Your task to perform on an android device: uninstall "Google Play Games" Image 0: 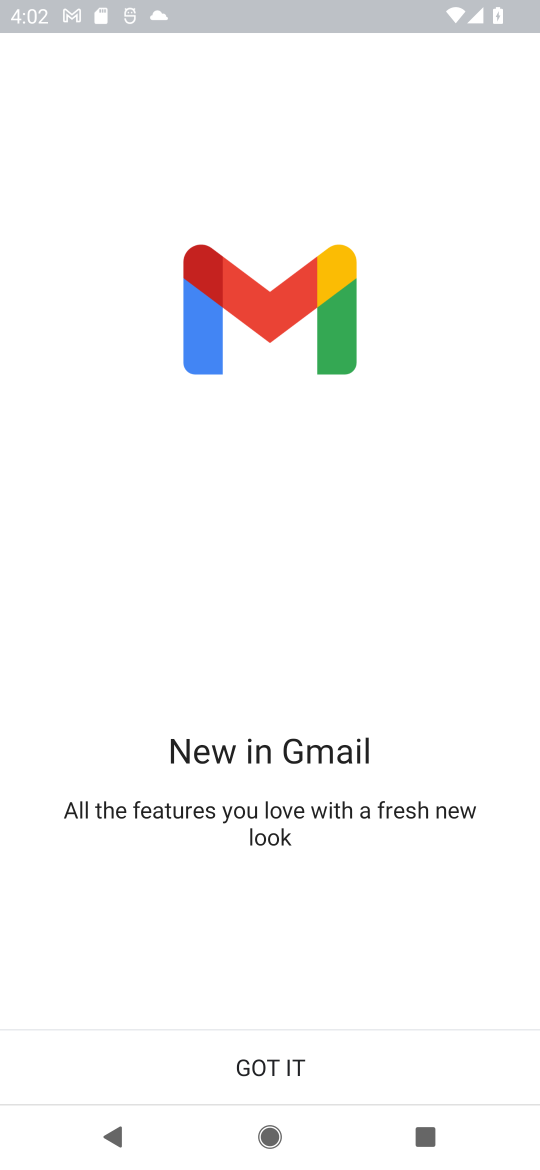
Step 0: press home button
Your task to perform on an android device: uninstall "Google Play Games" Image 1: 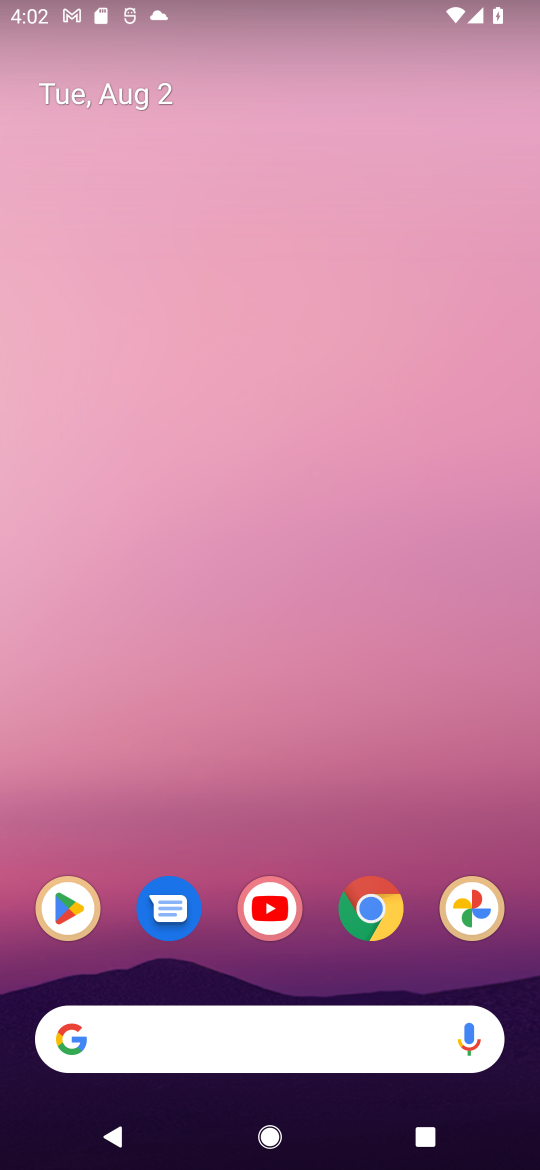
Step 1: click (60, 898)
Your task to perform on an android device: uninstall "Google Play Games" Image 2: 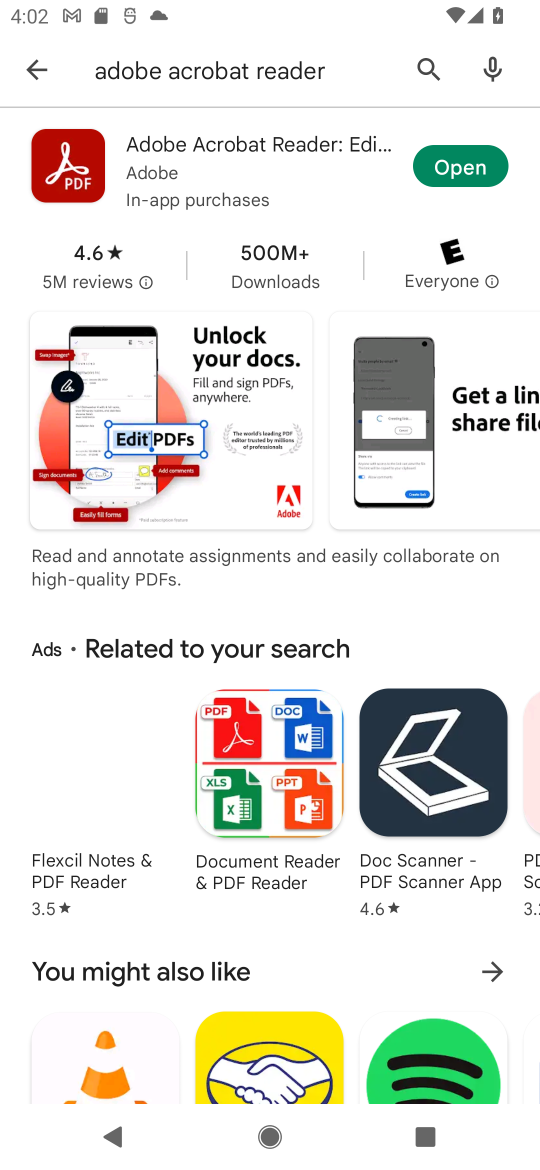
Step 2: click (418, 65)
Your task to perform on an android device: uninstall "Google Play Games" Image 3: 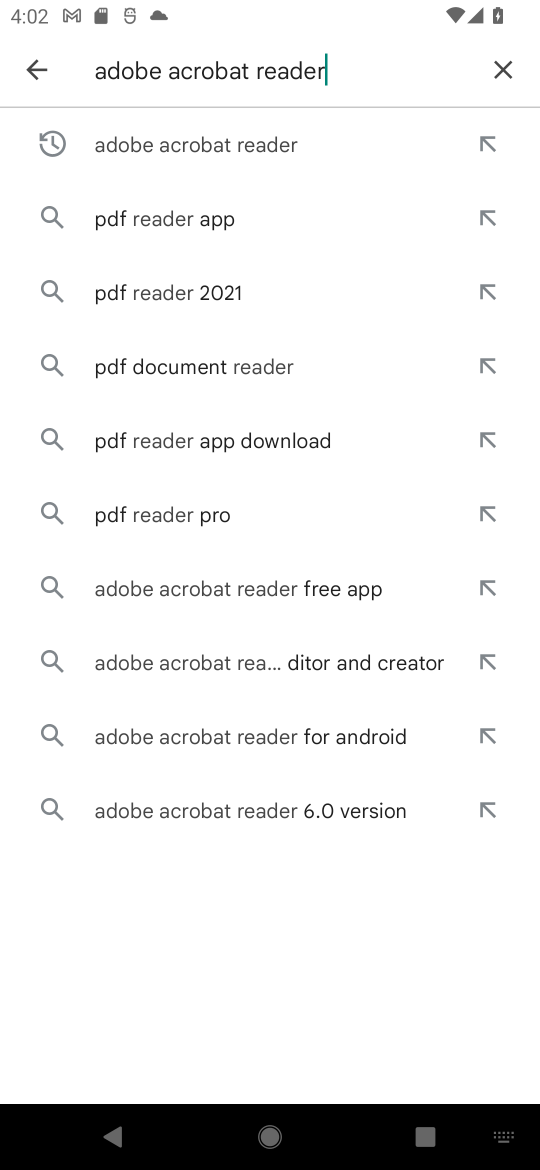
Step 3: click (504, 76)
Your task to perform on an android device: uninstall "Google Play Games" Image 4: 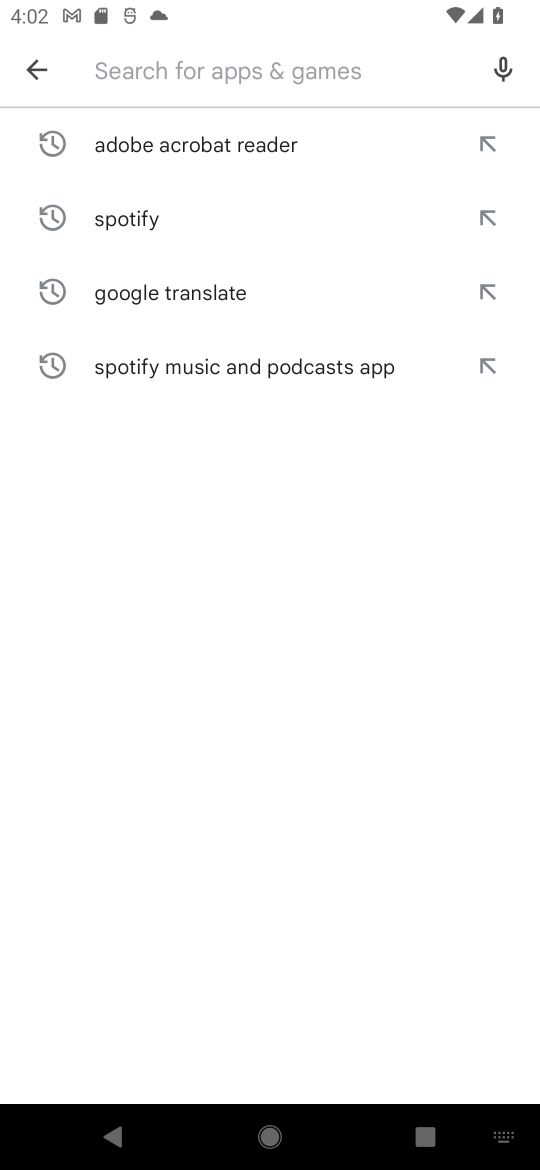
Step 4: type "Google Play Games"
Your task to perform on an android device: uninstall "Google Play Games" Image 5: 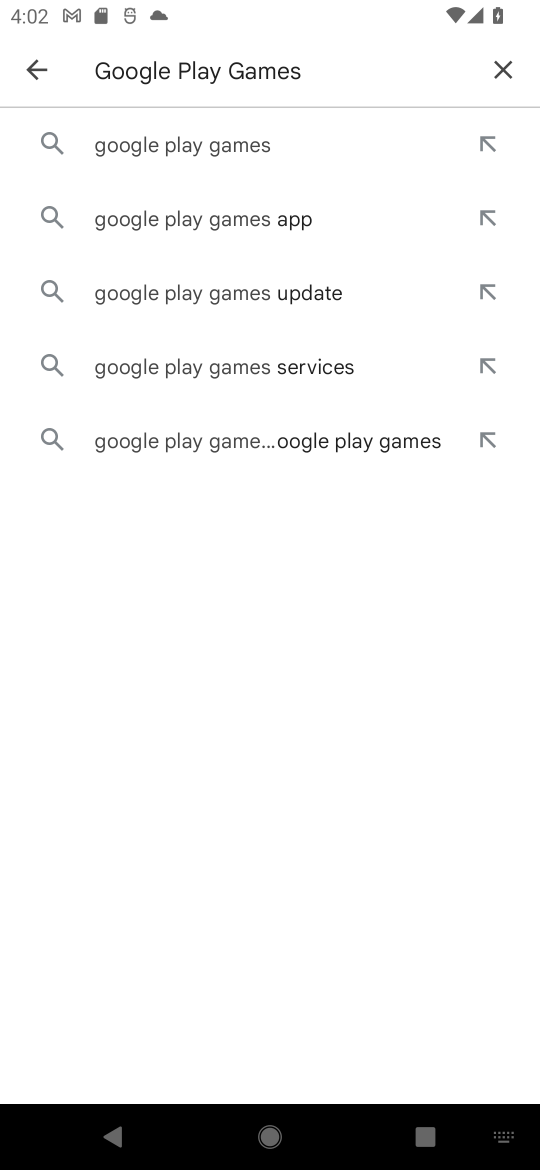
Step 5: click (257, 137)
Your task to perform on an android device: uninstall "Google Play Games" Image 6: 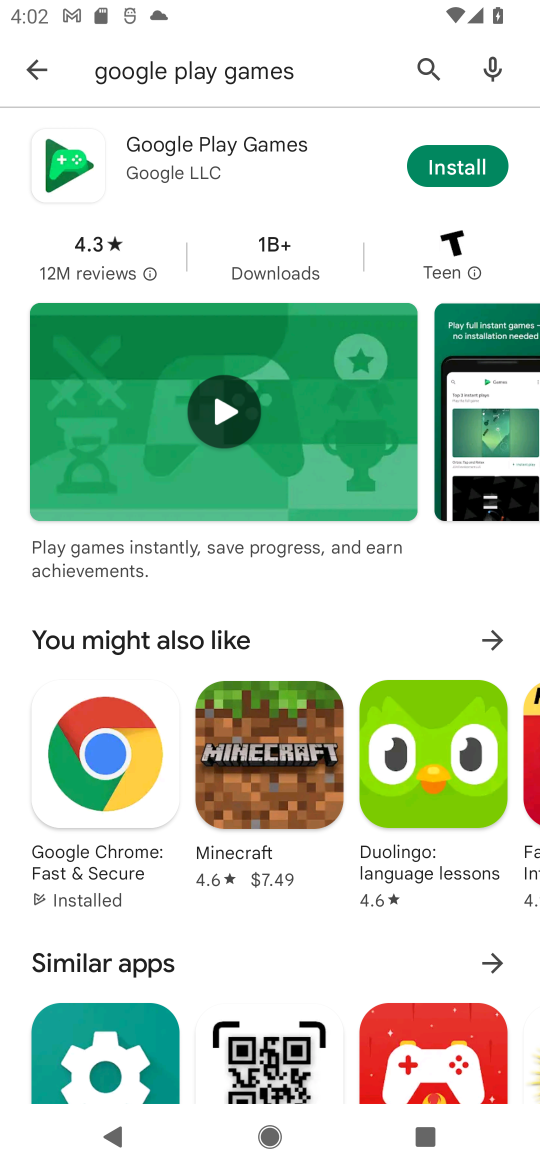
Step 6: task complete